Your task to perform on an android device: remove spam from my inbox in the gmail app Image 0: 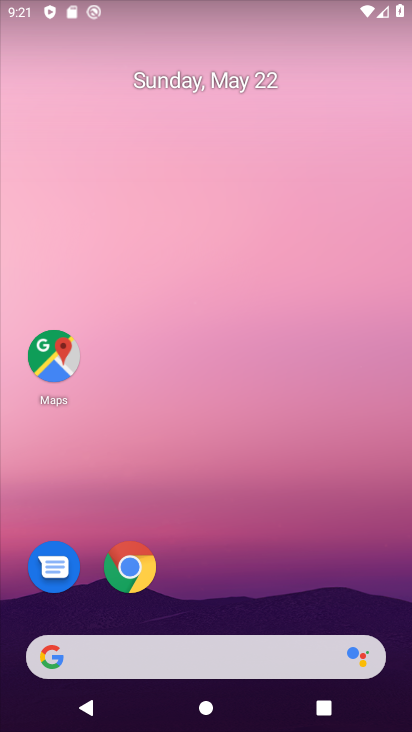
Step 0: drag from (170, 393) to (193, 254)
Your task to perform on an android device: remove spam from my inbox in the gmail app Image 1: 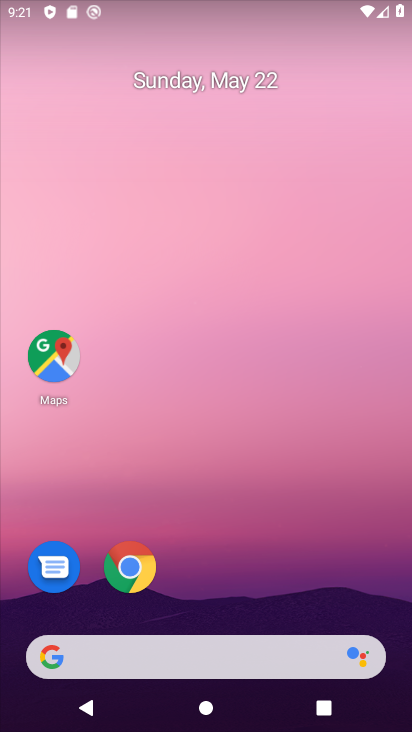
Step 1: drag from (259, 508) to (256, 250)
Your task to perform on an android device: remove spam from my inbox in the gmail app Image 2: 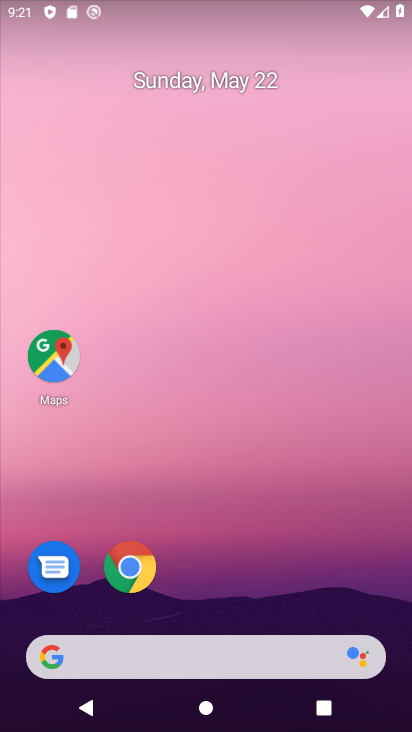
Step 2: drag from (250, 548) to (266, 155)
Your task to perform on an android device: remove spam from my inbox in the gmail app Image 3: 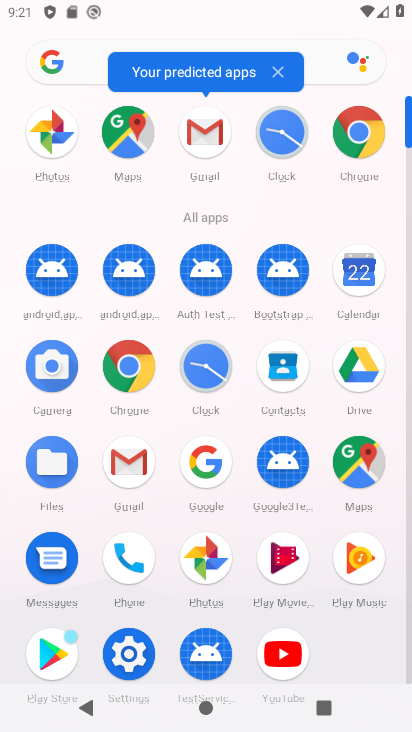
Step 3: click (192, 134)
Your task to perform on an android device: remove spam from my inbox in the gmail app Image 4: 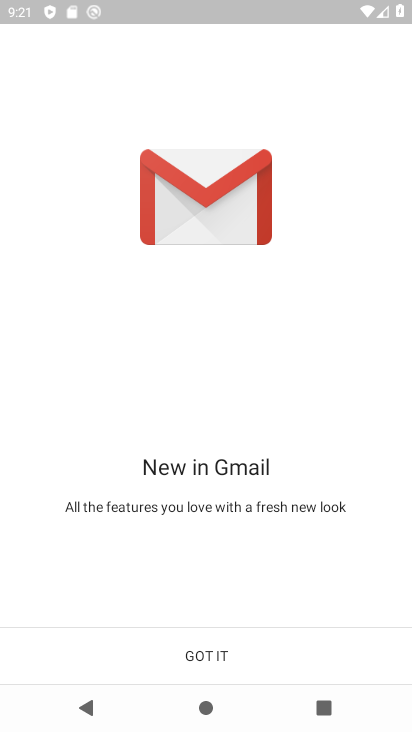
Step 4: click (190, 647)
Your task to perform on an android device: remove spam from my inbox in the gmail app Image 5: 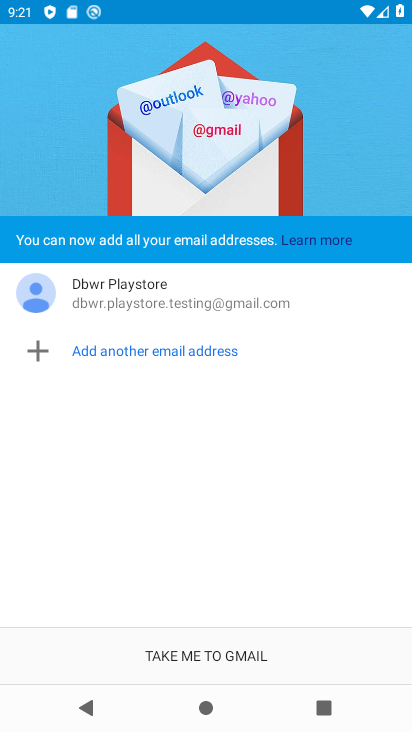
Step 5: click (190, 647)
Your task to perform on an android device: remove spam from my inbox in the gmail app Image 6: 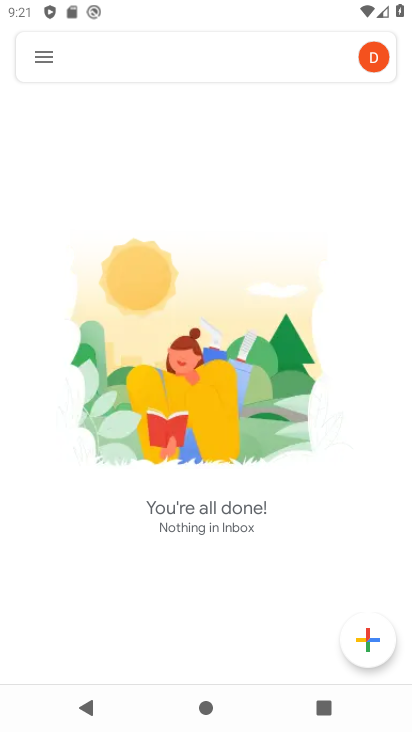
Step 6: click (32, 52)
Your task to perform on an android device: remove spam from my inbox in the gmail app Image 7: 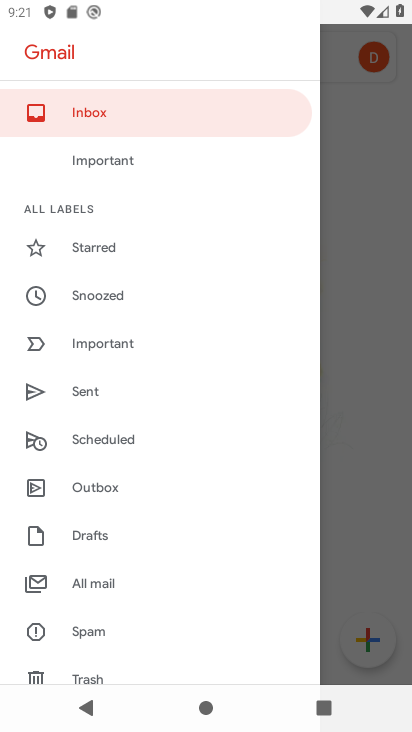
Step 7: click (109, 625)
Your task to perform on an android device: remove spam from my inbox in the gmail app Image 8: 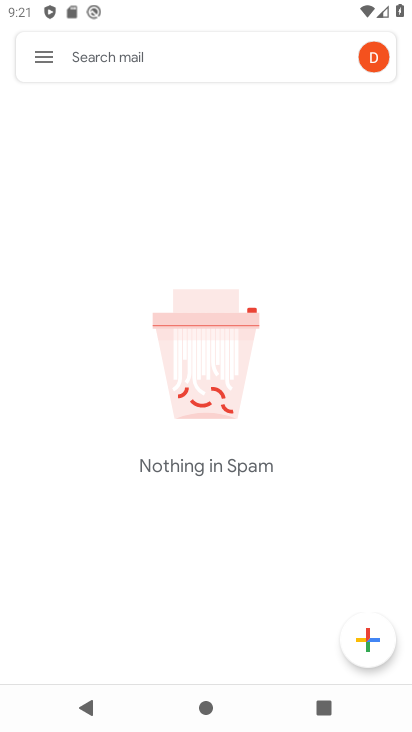
Step 8: click (43, 62)
Your task to perform on an android device: remove spam from my inbox in the gmail app Image 9: 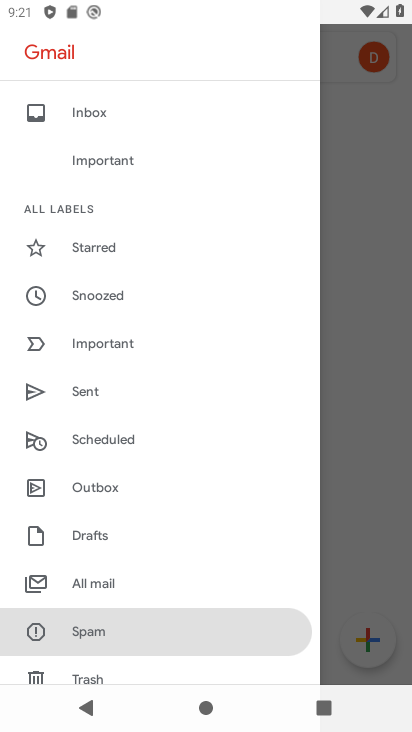
Step 9: click (107, 629)
Your task to perform on an android device: remove spam from my inbox in the gmail app Image 10: 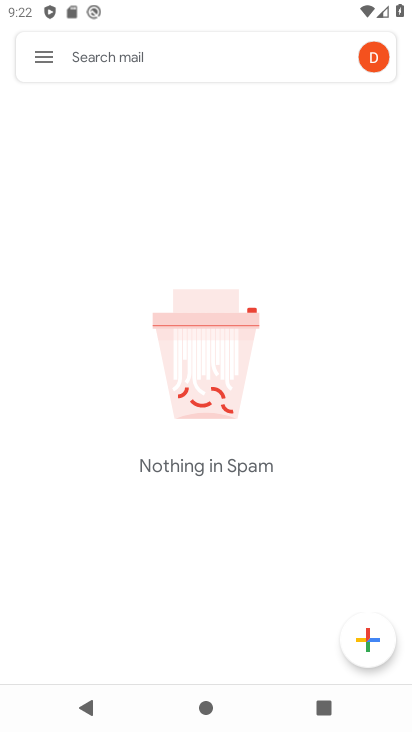
Step 10: task complete